Your task to perform on an android device: When is my next meeting? Image 0: 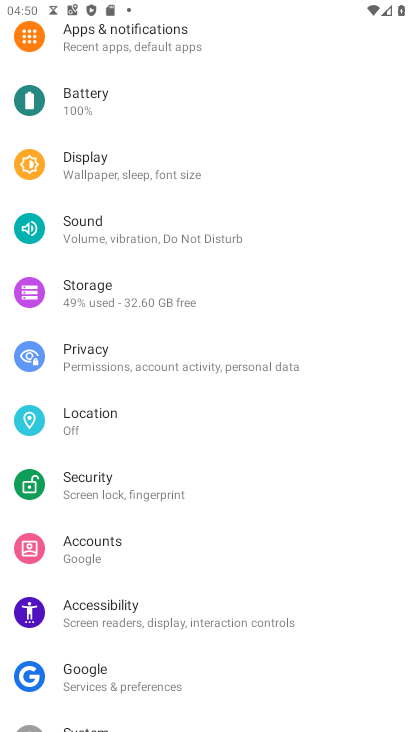
Step 0: press home button
Your task to perform on an android device: When is my next meeting? Image 1: 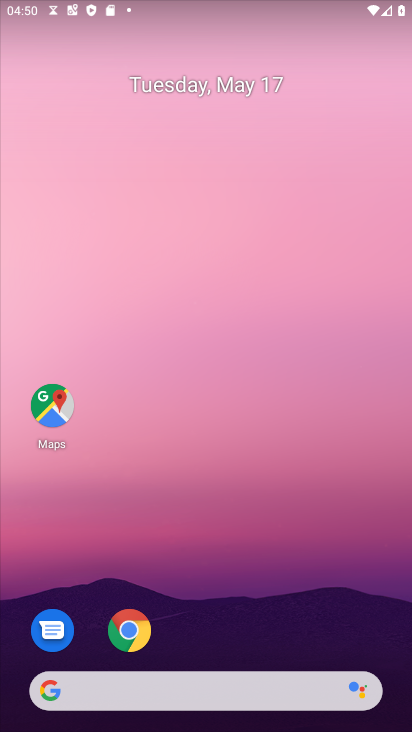
Step 1: drag from (281, 587) to (323, 73)
Your task to perform on an android device: When is my next meeting? Image 2: 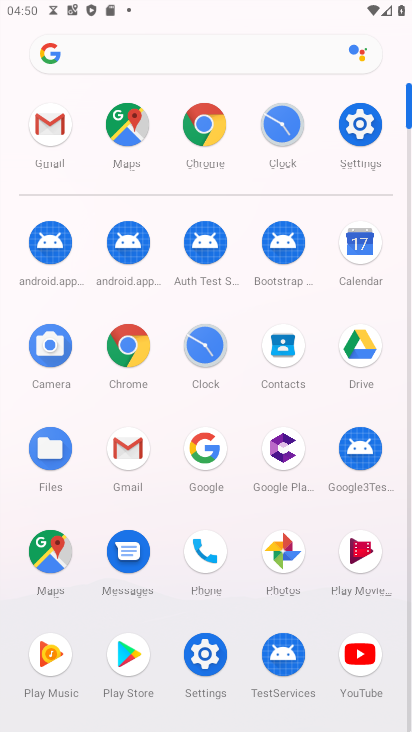
Step 2: click (365, 240)
Your task to perform on an android device: When is my next meeting? Image 3: 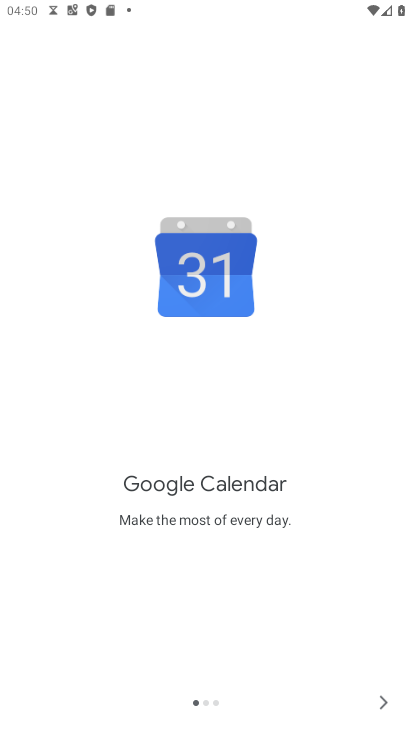
Step 3: click (384, 693)
Your task to perform on an android device: When is my next meeting? Image 4: 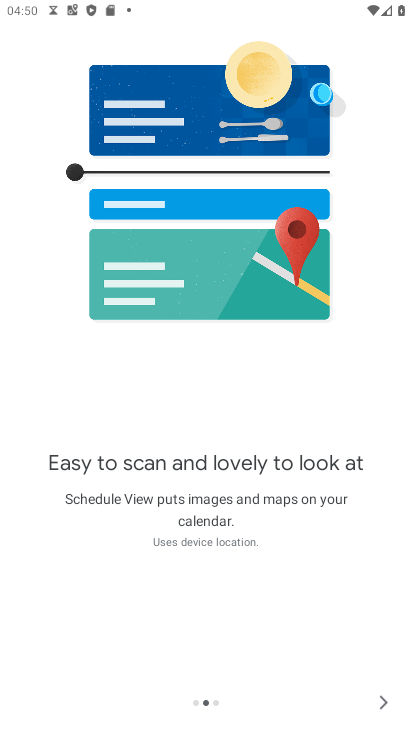
Step 4: click (384, 693)
Your task to perform on an android device: When is my next meeting? Image 5: 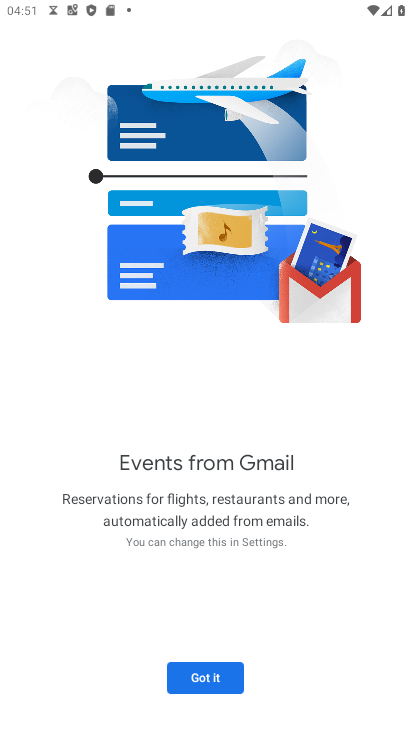
Step 5: click (201, 672)
Your task to perform on an android device: When is my next meeting? Image 6: 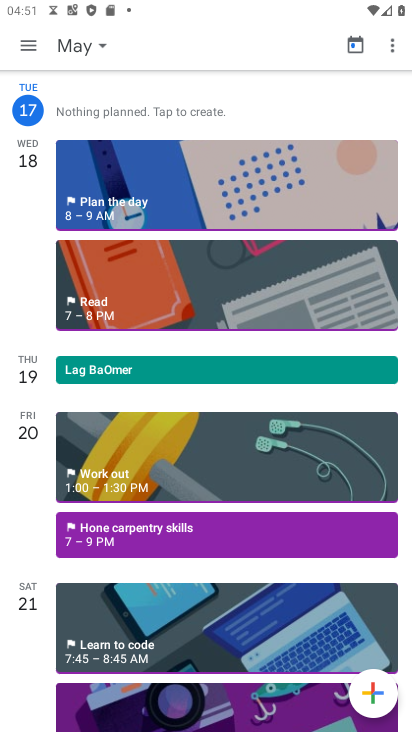
Step 6: task complete